Your task to perform on an android device: Turn on the flashlight Image 0: 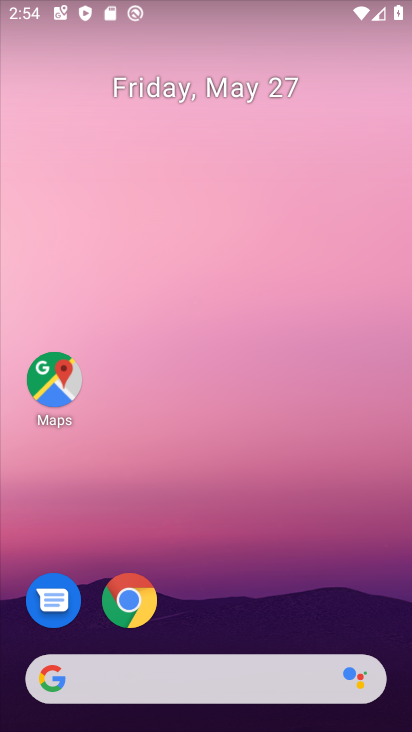
Step 0: click (242, 455)
Your task to perform on an android device: Turn on the flashlight Image 1: 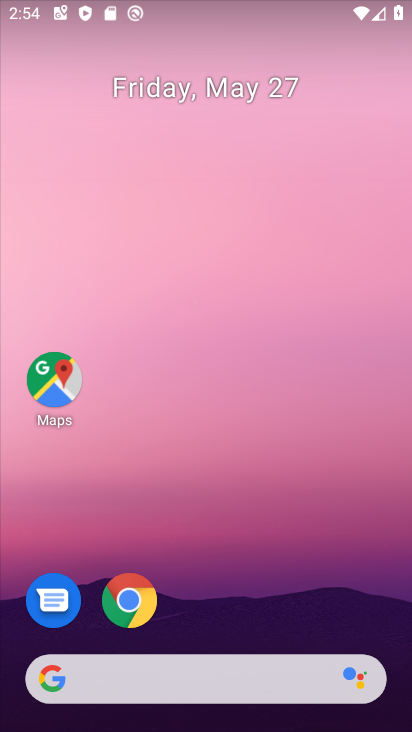
Step 1: drag from (340, 595) to (301, 161)
Your task to perform on an android device: Turn on the flashlight Image 2: 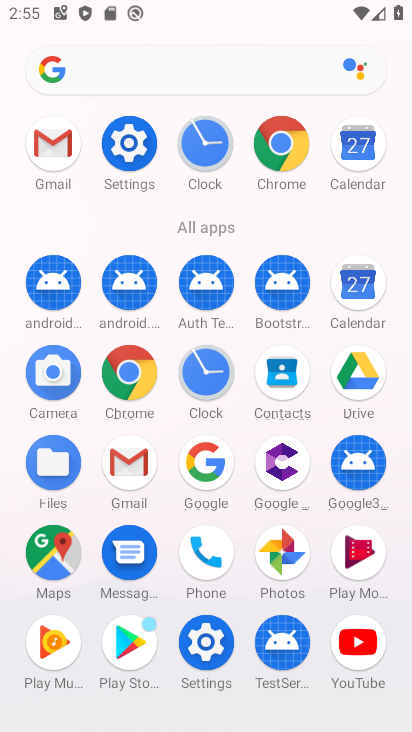
Step 2: drag from (295, 7) to (316, 521)
Your task to perform on an android device: Turn on the flashlight Image 3: 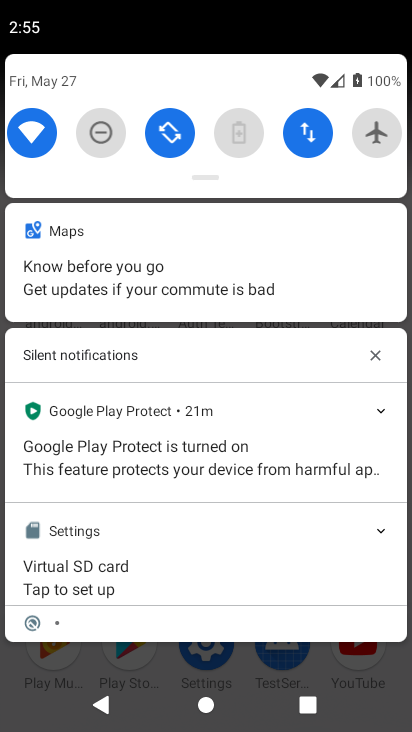
Step 3: drag from (246, 168) to (306, 598)
Your task to perform on an android device: Turn on the flashlight Image 4: 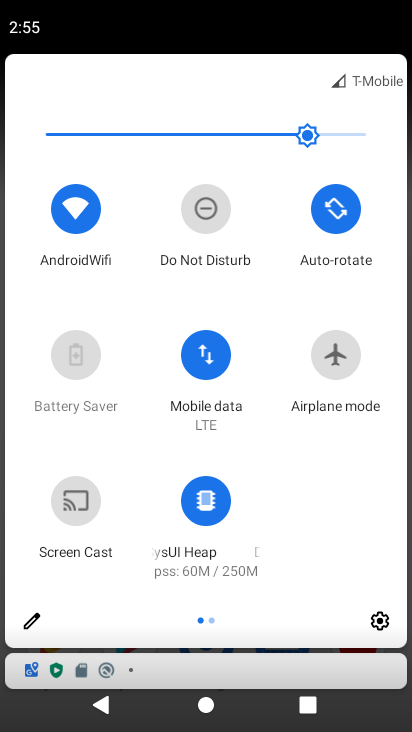
Step 4: click (28, 619)
Your task to perform on an android device: Turn on the flashlight Image 5: 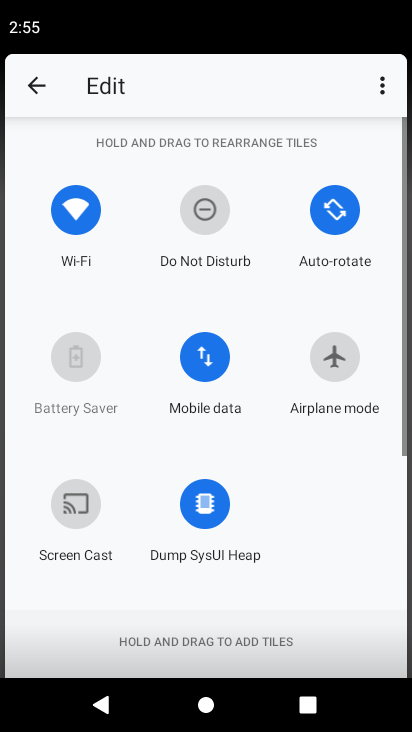
Step 5: task complete